Your task to perform on an android device: Search for vegetarian restaurants on Maps Image 0: 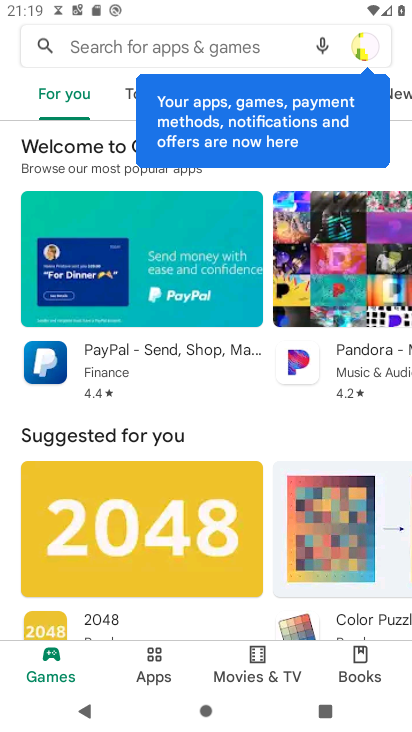
Step 0: press home button
Your task to perform on an android device: Search for vegetarian restaurants on Maps Image 1: 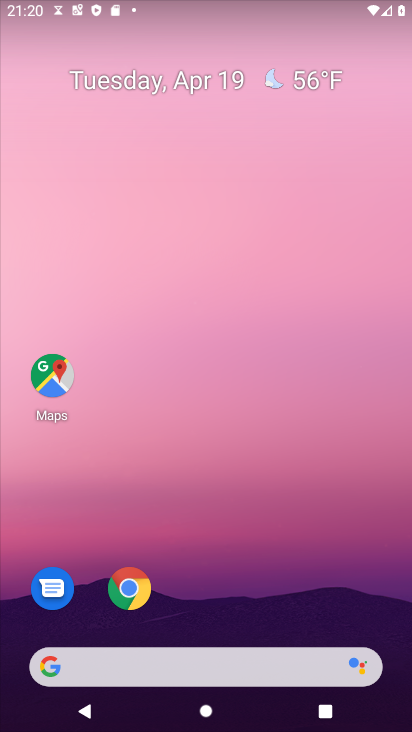
Step 1: click (55, 379)
Your task to perform on an android device: Search for vegetarian restaurants on Maps Image 2: 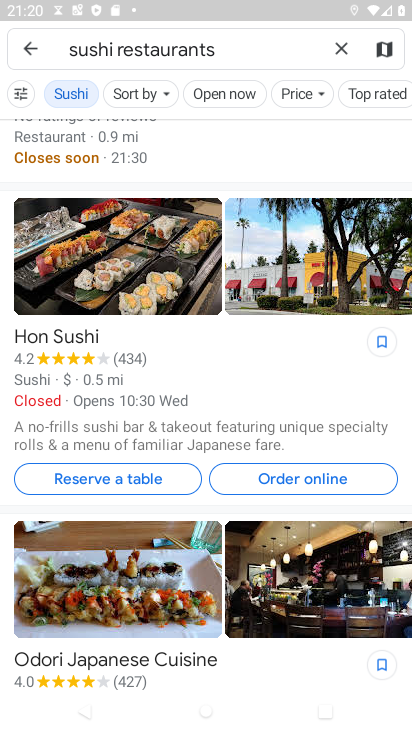
Step 2: click (341, 50)
Your task to perform on an android device: Search for vegetarian restaurants on Maps Image 3: 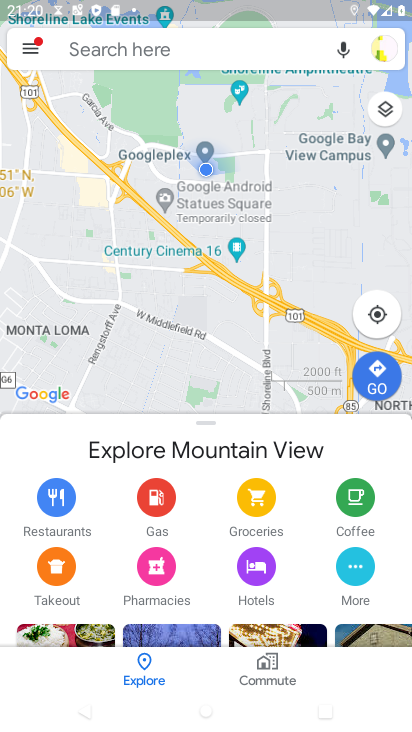
Step 3: click (288, 56)
Your task to perform on an android device: Search for vegetarian restaurants on Maps Image 4: 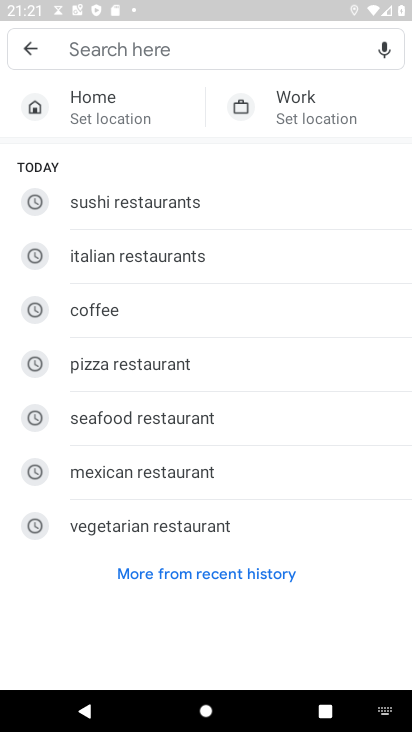
Step 4: type "vegetarian restaurants"
Your task to perform on an android device: Search for vegetarian restaurants on Maps Image 5: 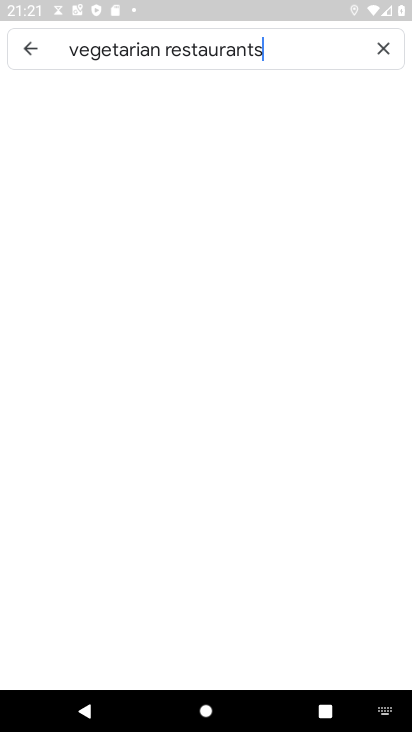
Step 5: type ""
Your task to perform on an android device: Search for vegetarian restaurants on Maps Image 6: 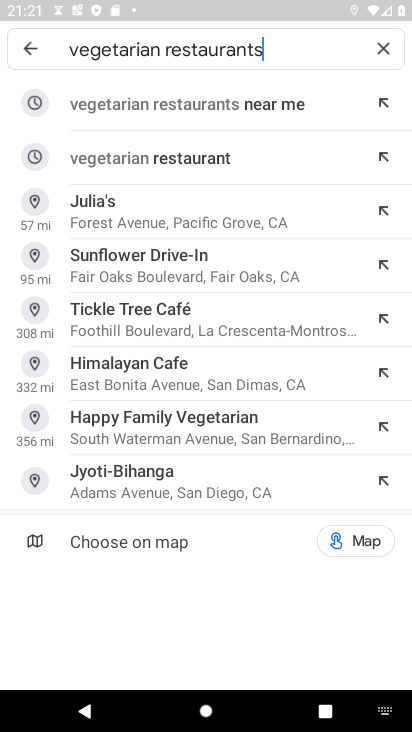
Step 6: click (189, 167)
Your task to perform on an android device: Search for vegetarian restaurants on Maps Image 7: 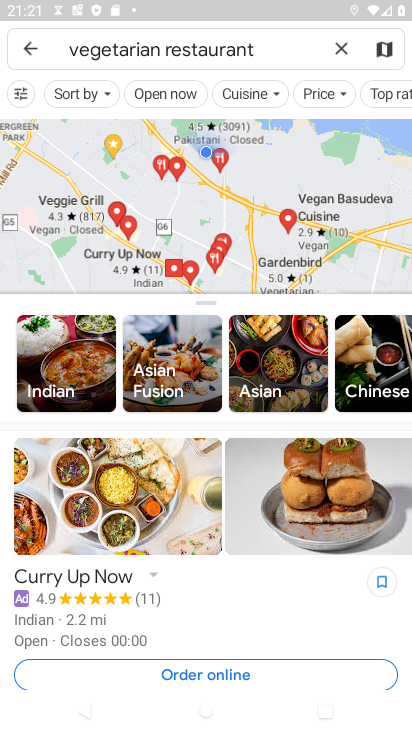
Step 7: task complete